Your task to perform on an android device: Open Chrome and go to settings Image 0: 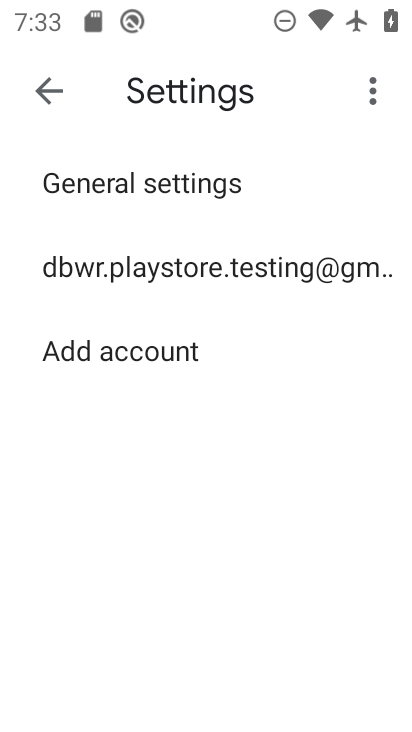
Step 0: press home button
Your task to perform on an android device: Open Chrome and go to settings Image 1: 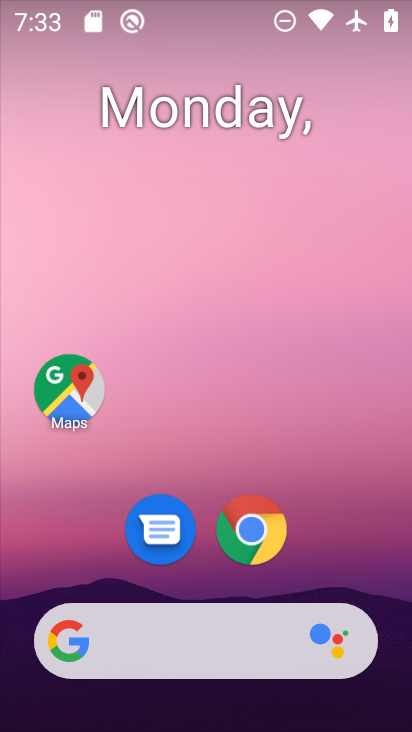
Step 1: click (252, 534)
Your task to perform on an android device: Open Chrome and go to settings Image 2: 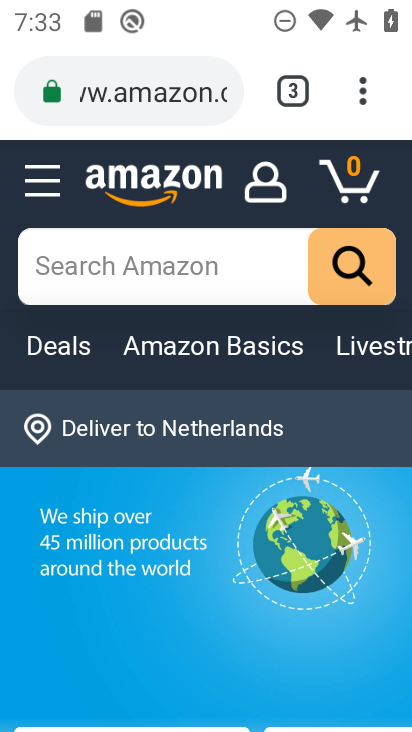
Step 2: click (361, 87)
Your task to perform on an android device: Open Chrome and go to settings Image 3: 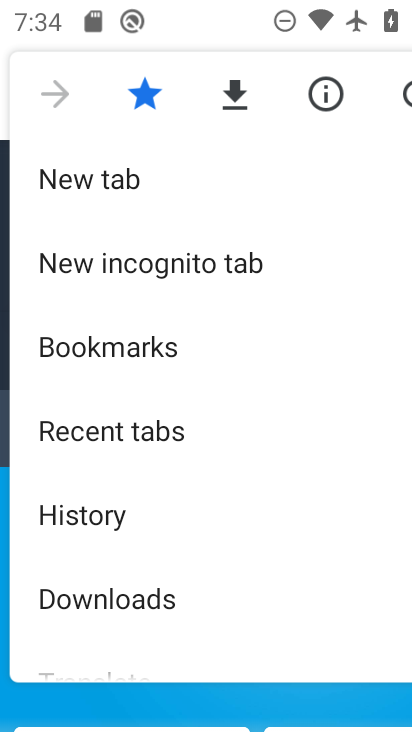
Step 3: drag from (278, 470) to (221, 116)
Your task to perform on an android device: Open Chrome and go to settings Image 4: 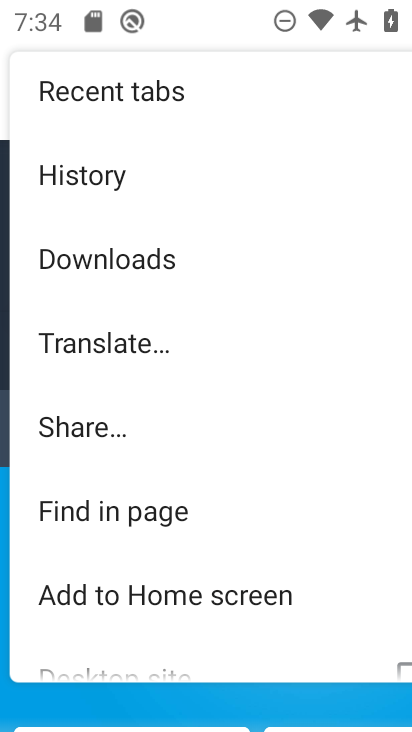
Step 4: drag from (230, 495) to (181, 144)
Your task to perform on an android device: Open Chrome and go to settings Image 5: 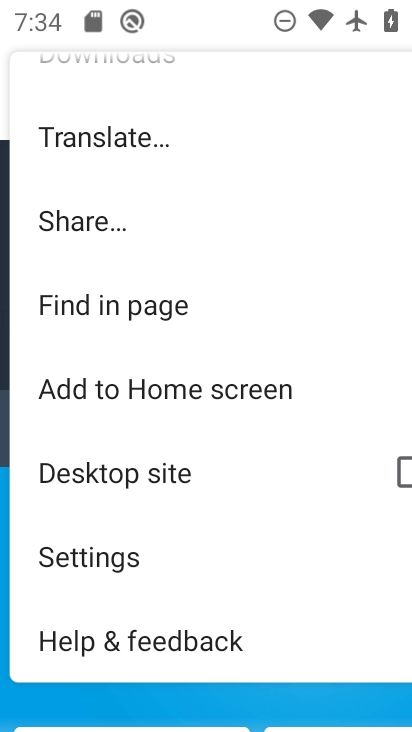
Step 5: click (95, 560)
Your task to perform on an android device: Open Chrome and go to settings Image 6: 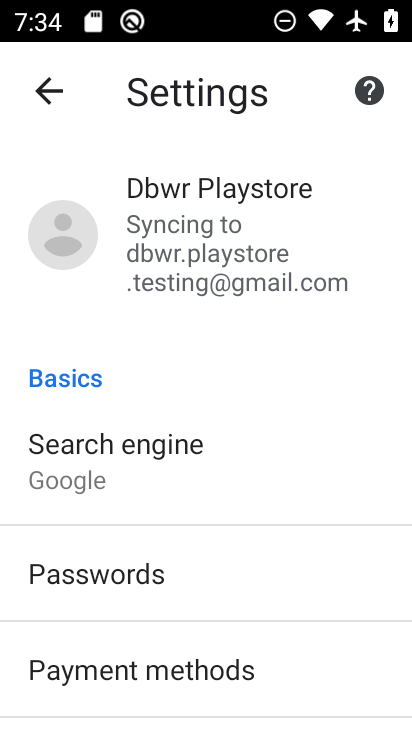
Step 6: task complete